Your task to perform on an android device: check data usage Image 0: 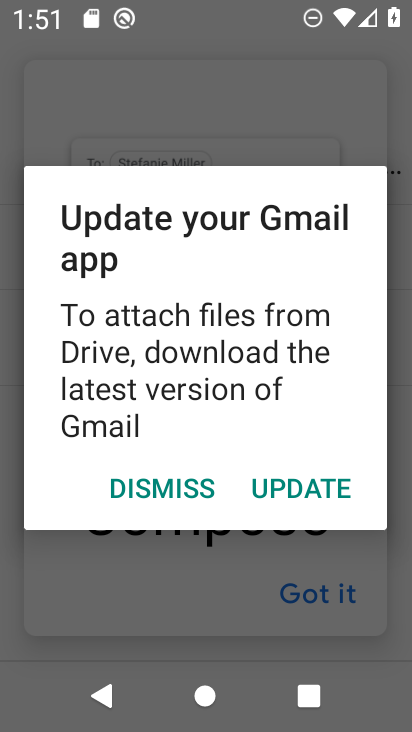
Step 0: press home button
Your task to perform on an android device: check data usage Image 1: 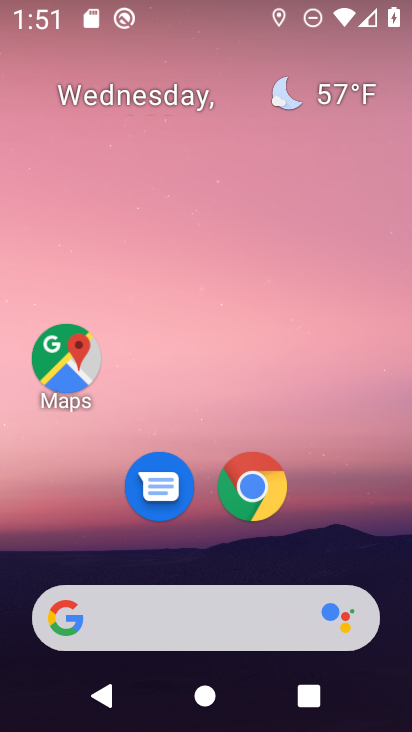
Step 1: drag from (333, 490) to (332, 59)
Your task to perform on an android device: check data usage Image 2: 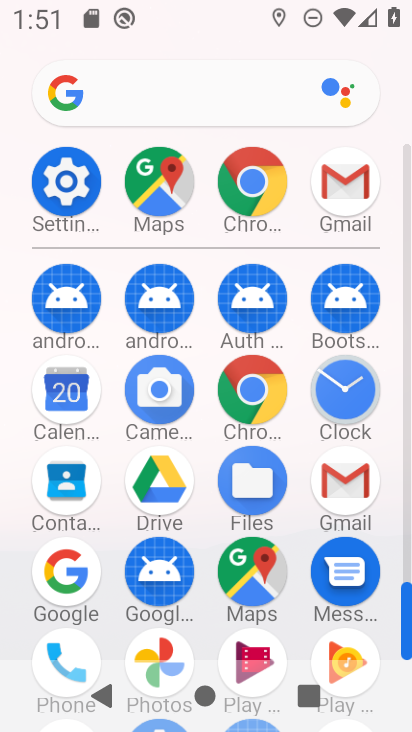
Step 2: click (82, 196)
Your task to perform on an android device: check data usage Image 3: 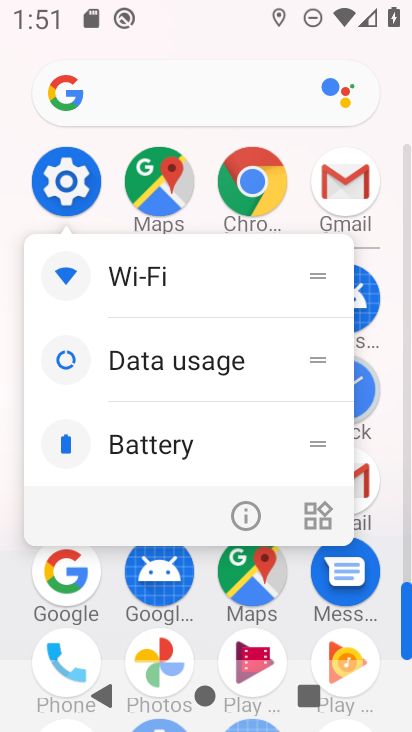
Step 3: click (67, 181)
Your task to perform on an android device: check data usage Image 4: 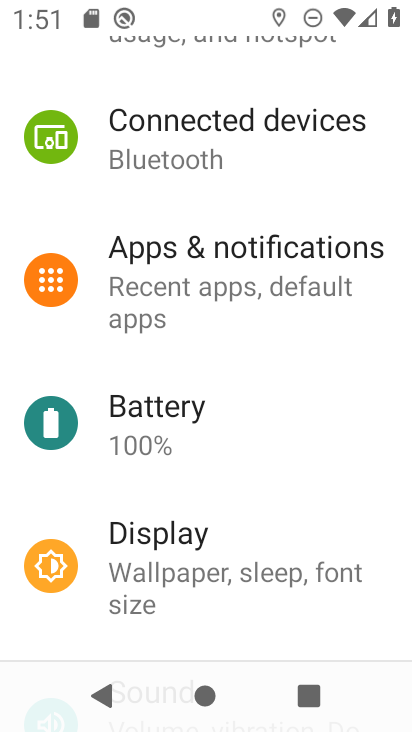
Step 4: drag from (318, 465) to (325, 345)
Your task to perform on an android device: check data usage Image 5: 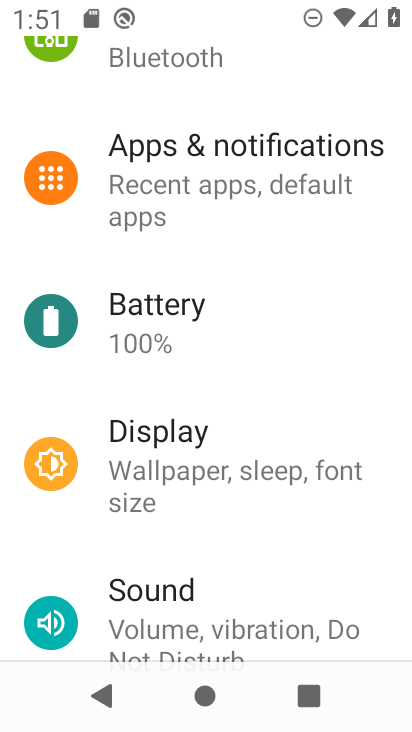
Step 5: drag from (344, 469) to (331, 359)
Your task to perform on an android device: check data usage Image 6: 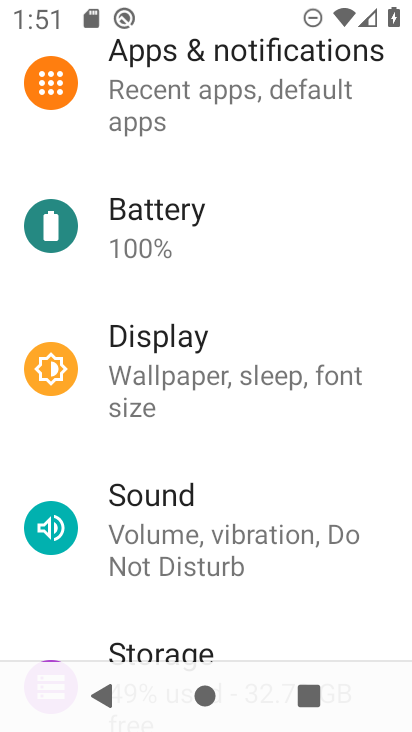
Step 6: drag from (332, 294) to (337, 380)
Your task to perform on an android device: check data usage Image 7: 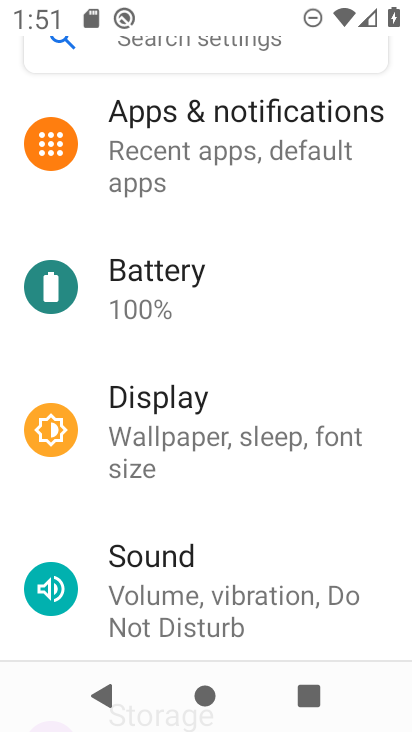
Step 7: drag from (350, 246) to (355, 368)
Your task to perform on an android device: check data usage Image 8: 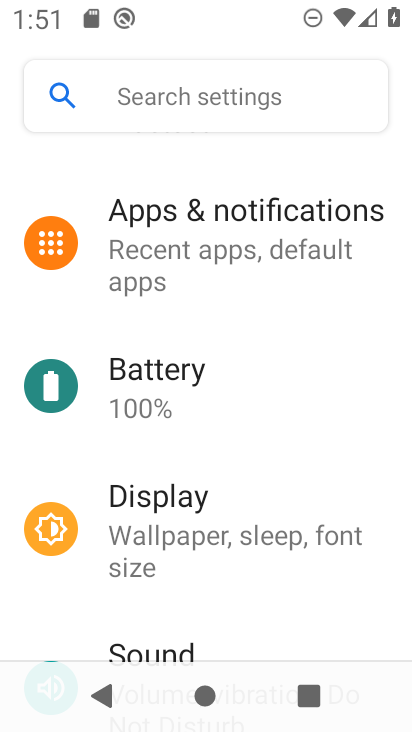
Step 8: drag from (368, 265) to (373, 364)
Your task to perform on an android device: check data usage Image 9: 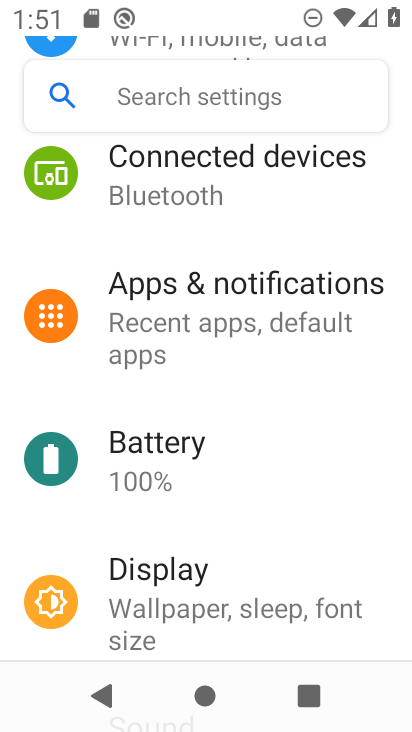
Step 9: drag from (370, 238) to (370, 356)
Your task to perform on an android device: check data usage Image 10: 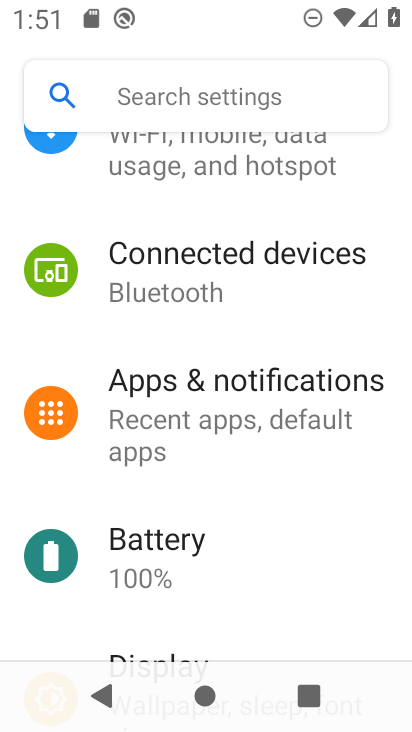
Step 10: drag from (371, 254) to (368, 366)
Your task to perform on an android device: check data usage Image 11: 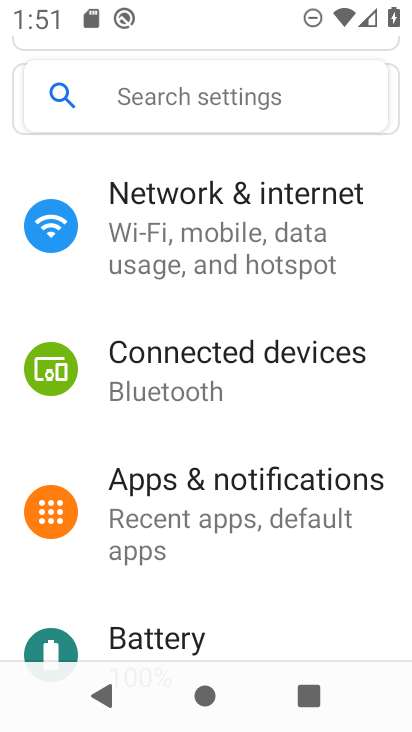
Step 11: drag from (367, 238) to (369, 343)
Your task to perform on an android device: check data usage Image 12: 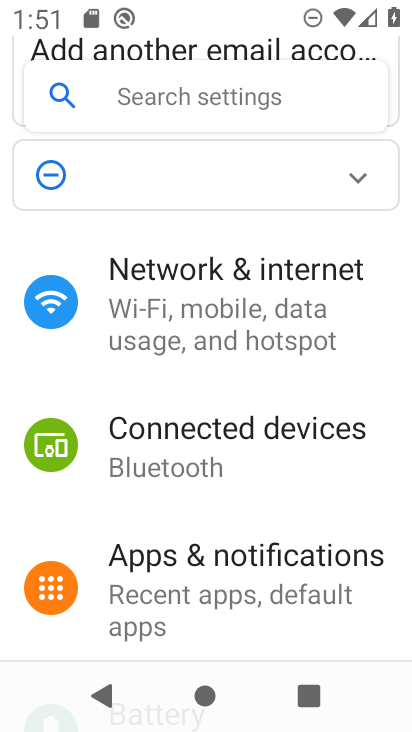
Step 12: click (320, 303)
Your task to perform on an android device: check data usage Image 13: 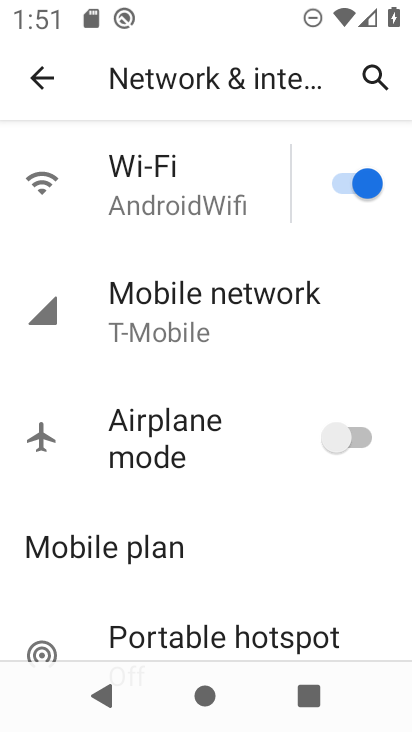
Step 13: click (240, 297)
Your task to perform on an android device: check data usage Image 14: 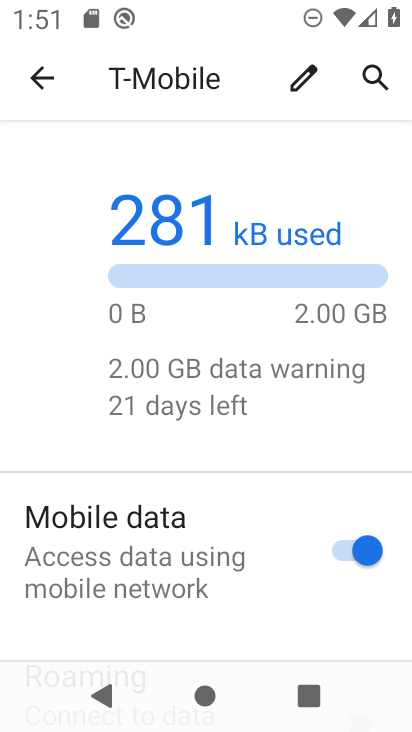
Step 14: drag from (291, 396) to (277, 264)
Your task to perform on an android device: check data usage Image 15: 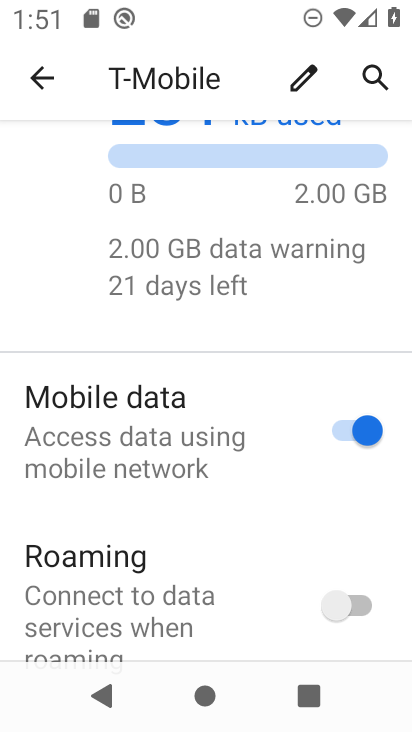
Step 15: drag from (283, 444) to (281, 318)
Your task to perform on an android device: check data usage Image 16: 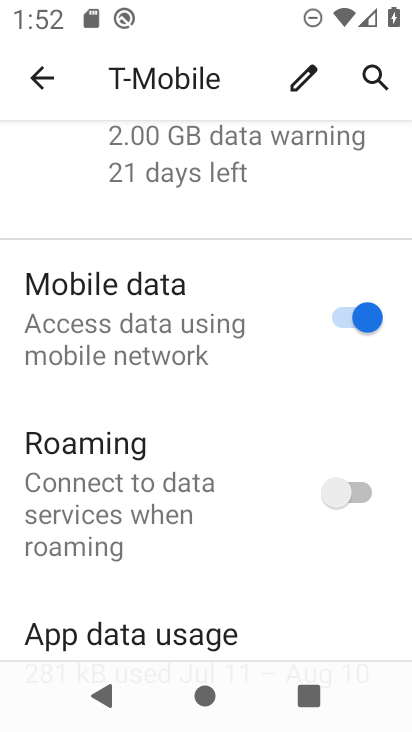
Step 16: drag from (259, 459) to (261, 287)
Your task to perform on an android device: check data usage Image 17: 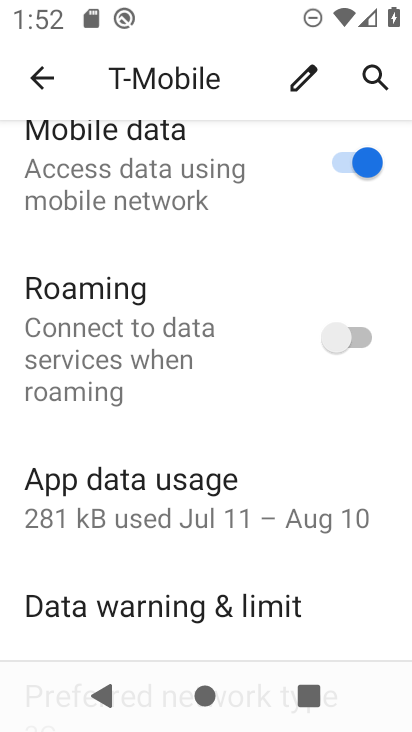
Step 17: drag from (287, 460) to (277, 335)
Your task to perform on an android device: check data usage Image 18: 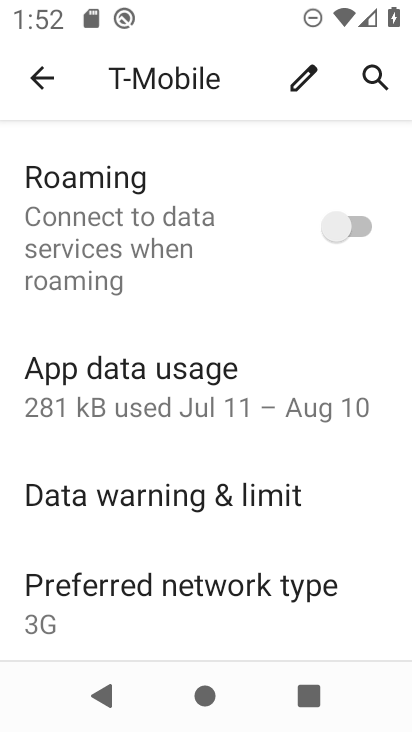
Step 18: click (291, 411)
Your task to perform on an android device: check data usage Image 19: 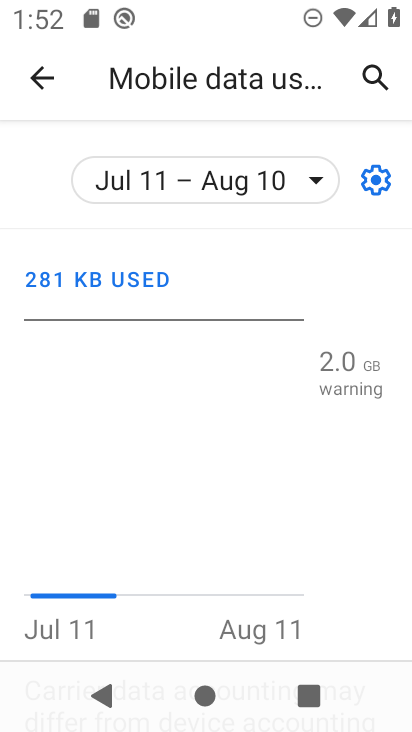
Step 19: task complete